Your task to perform on an android device: Open Google Chrome Image 0: 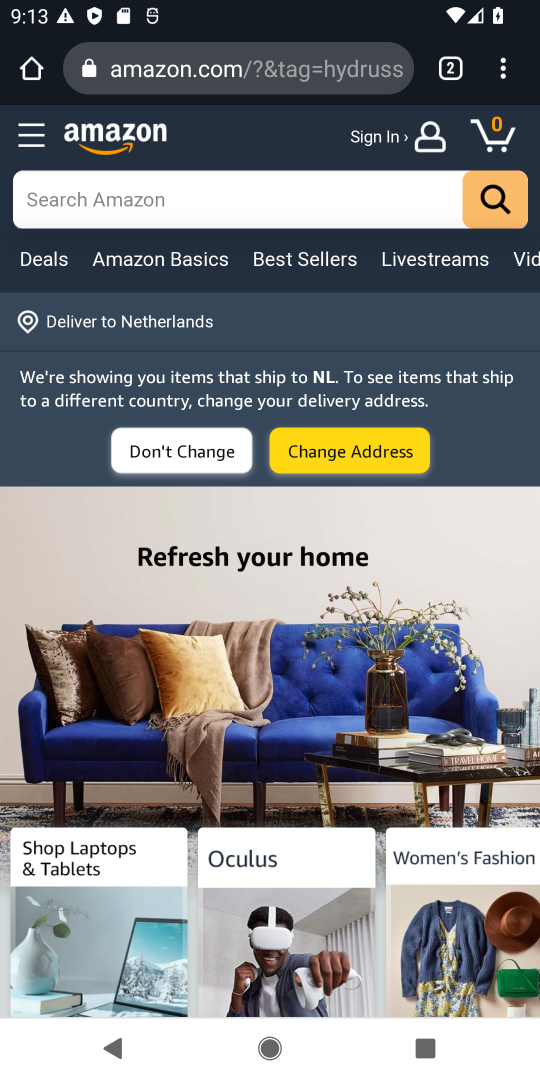
Step 0: press home button
Your task to perform on an android device: Open Google Chrome Image 1: 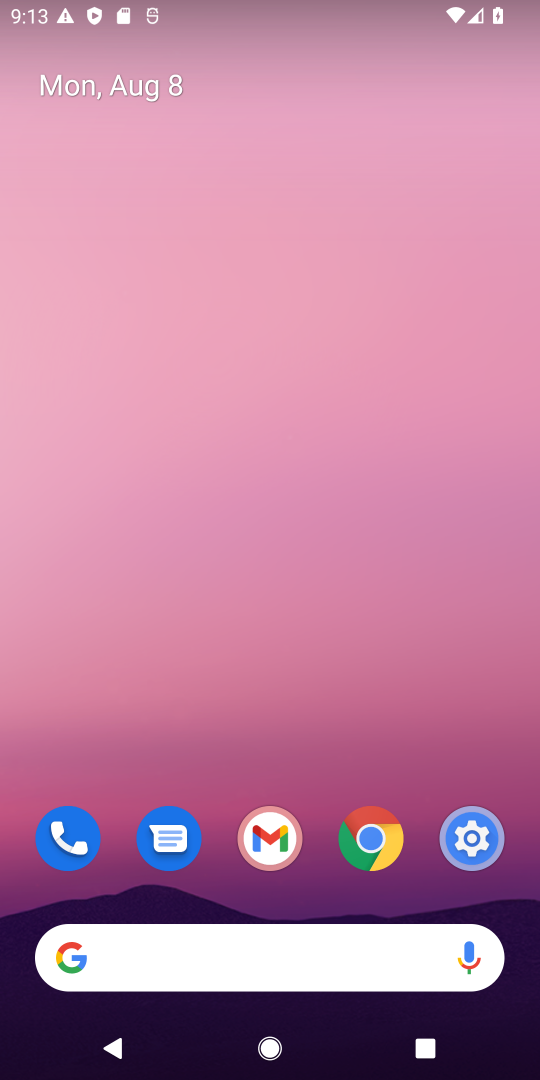
Step 1: click (363, 844)
Your task to perform on an android device: Open Google Chrome Image 2: 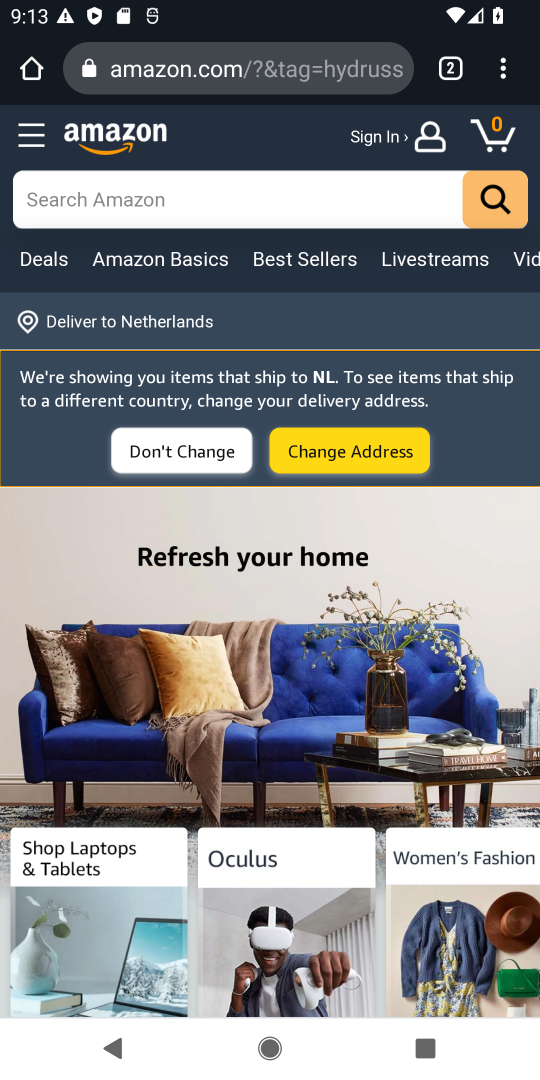
Step 2: click (454, 77)
Your task to perform on an android device: Open Google Chrome Image 3: 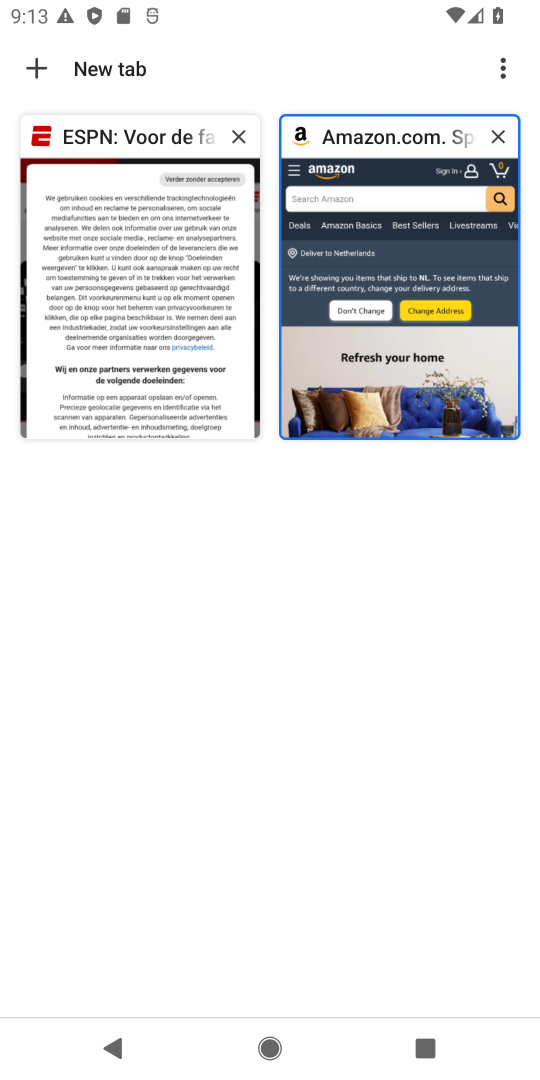
Step 3: click (35, 63)
Your task to perform on an android device: Open Google Chrome Image 4: 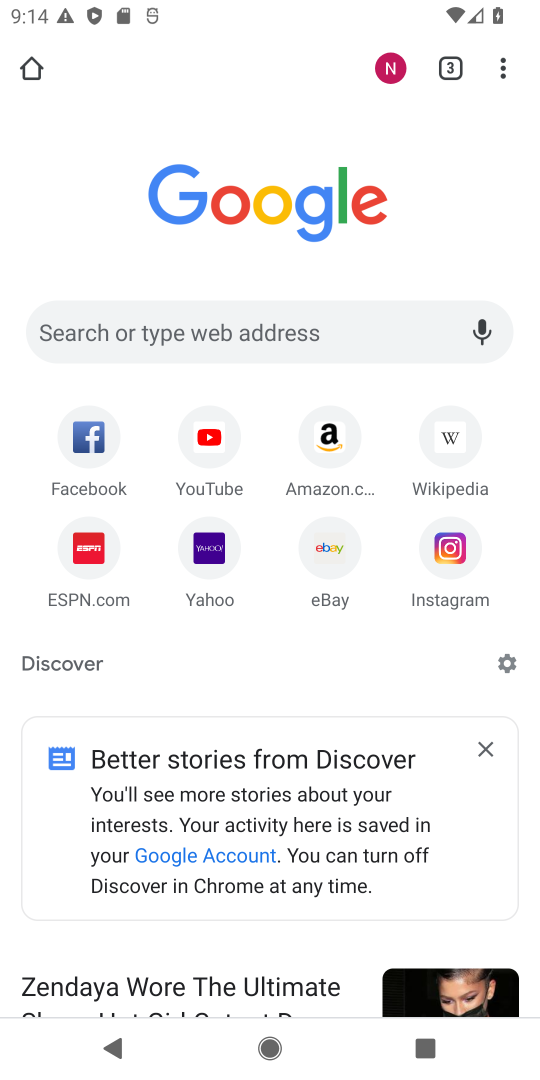
Step 4: task complete